Your task to perform on an android device: turn off priority inbox in the gmail app Image 0: 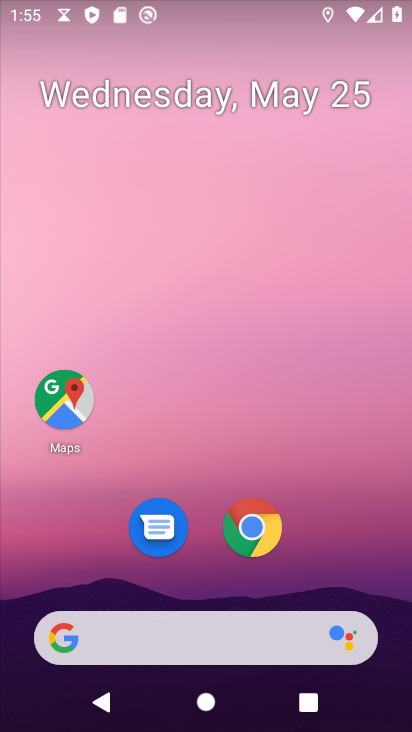
Step 0: drag from (134, 608) to (207, 125)
Your task to perform on an android device: turn off priority inbox in the gmail app Image 1: 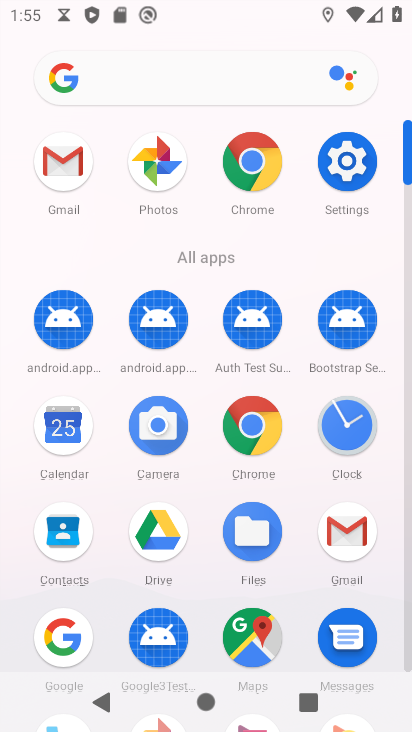
Step 1: click (339, 541)
Your task to perform on an android device: turn off priority inbox in the gmail app Image 2: 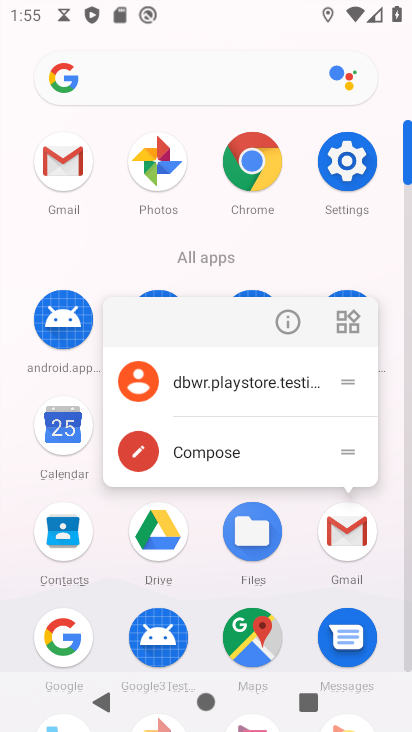
Step 2: click (348, 532)
Your task to perform on an android device: turn off priority inbox in the gmail app Image 3: 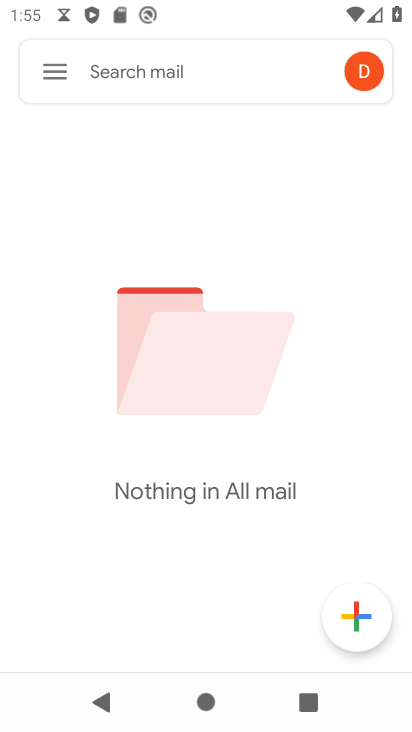
Step 3: click (48, 57)
Your task to perform on an android device: turn off priority inbox in the gmail app Image 4: 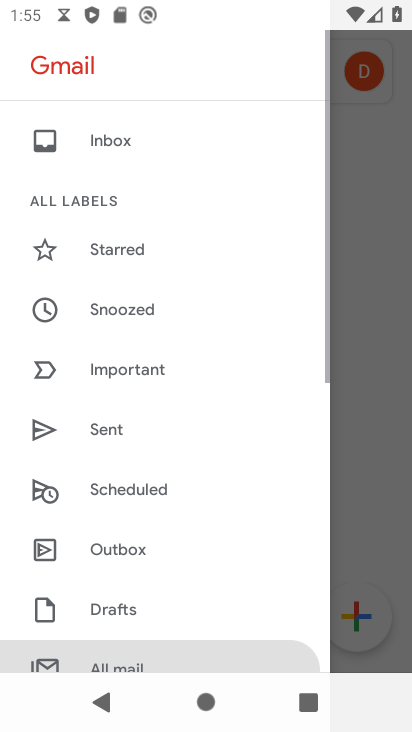
Step 4: drag from (194, 577) to (264, 145)
Your task to perform on an android device: turn off priority inbox in the gmail app Image 5: 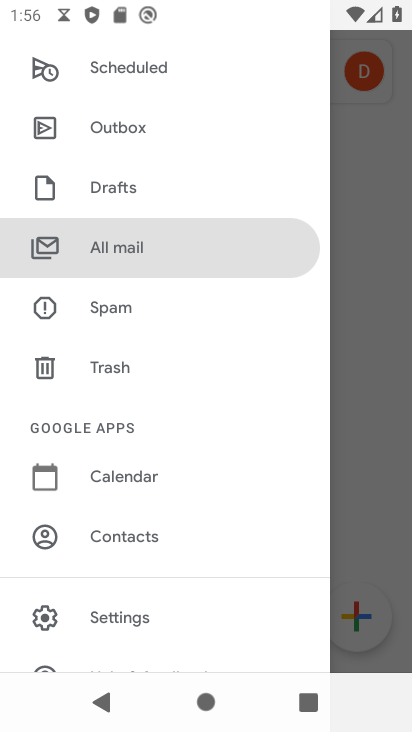
Step 5: drag from (145, 588) to (224, 202)
Your task to perform on an android device: turn off priority inbox in the gmail app Image 6: 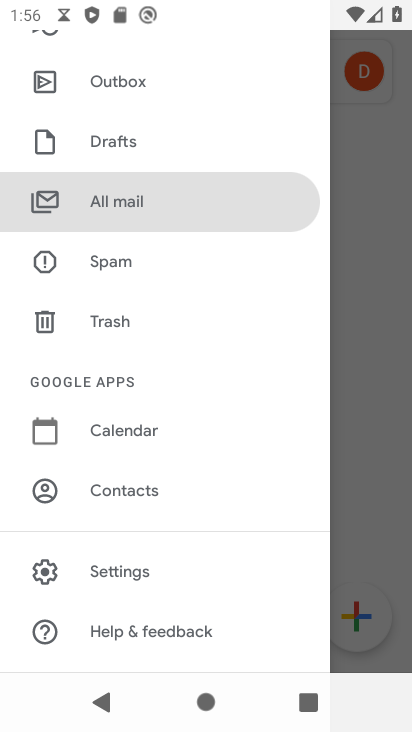
Step 6: click (143, 566)
Your task to perform on an android device: turn off priority inbox in the gmail app Image 7: 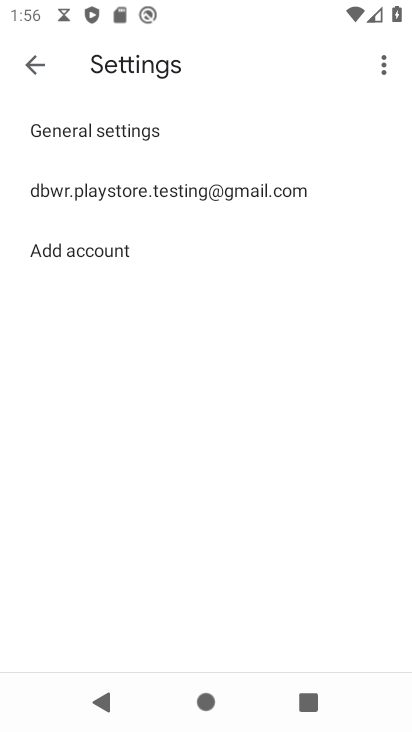
Step 7: click (256, 188)
Your task to perform on an android device: turn off priority inbox in the gmail app Image 8: 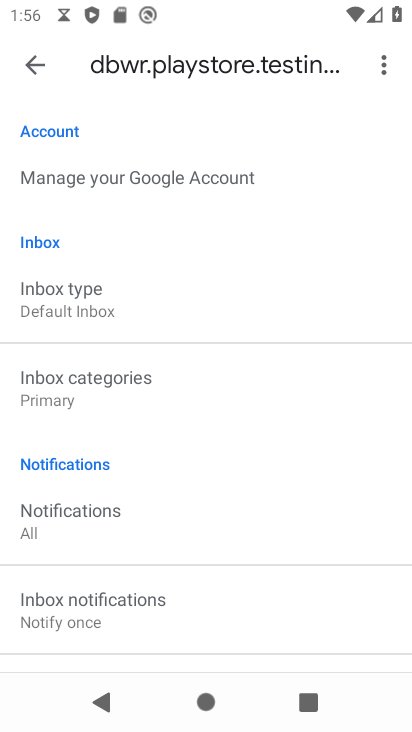
Step 8: task complete